Your task to perform on an android device: Open Youtube and go to "Your channel" Image 0: 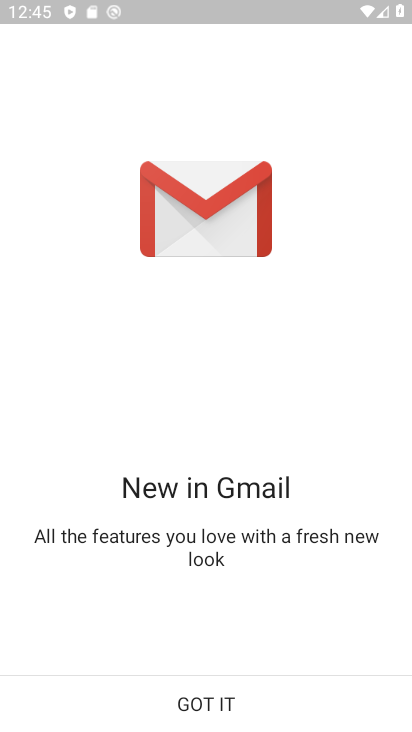
Step 0: press home button
Your task to perform on an android device: Open Youtube and go to "Your channel" Image 1: 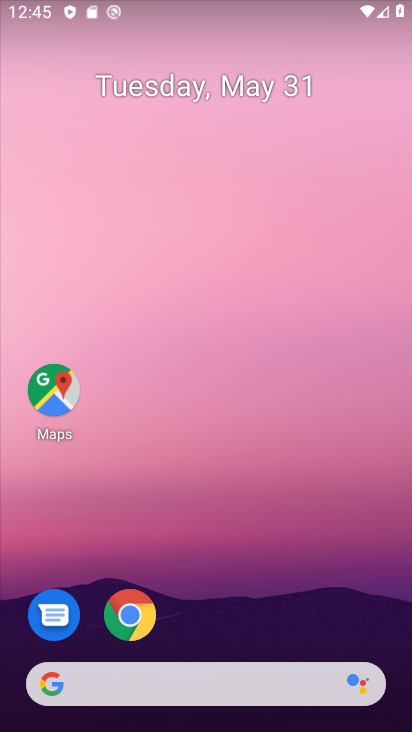
Step 1: drag from (288, 610) to (231, 235)
Your task to perform on an android device: Open Youtube and go to "Your channel" Image 2: 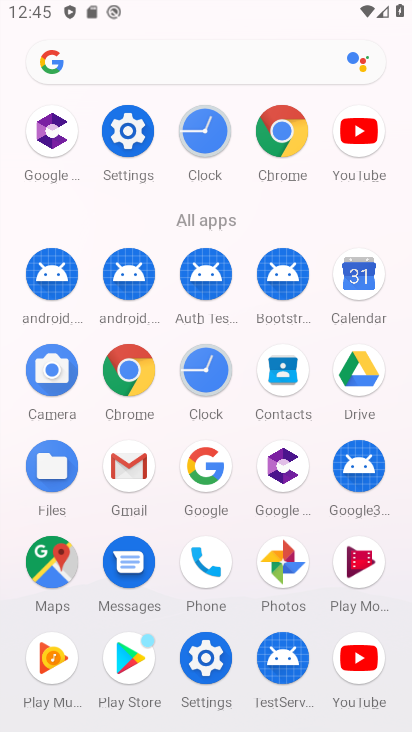
Step 2: click (363, 675)
Your task to perform on an android device: Open Youtube and go to "Your channel" Image 3: 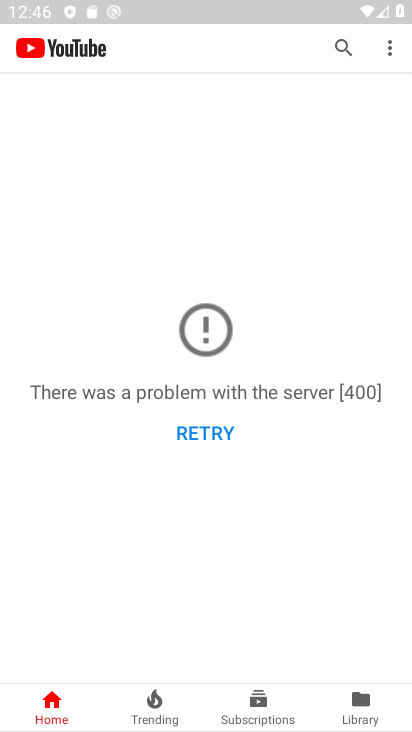
Step 3: task complete